Your task to perform on an android device: turn smart compose on in the gmail app Image 0: 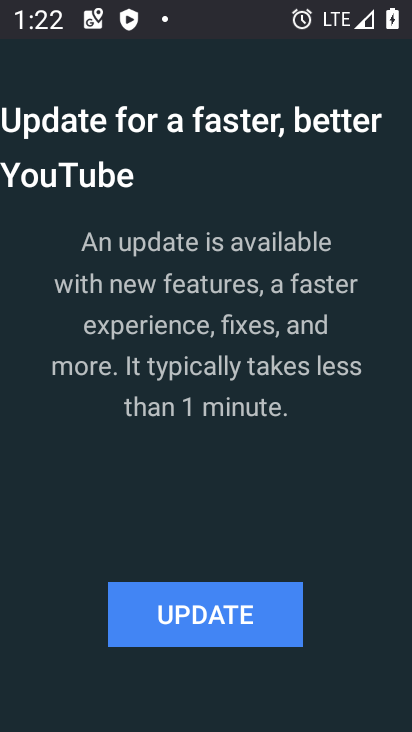
Step 0: press home button
Your task to perform on an android device: turn smart compose on in the gmail app Image 1: 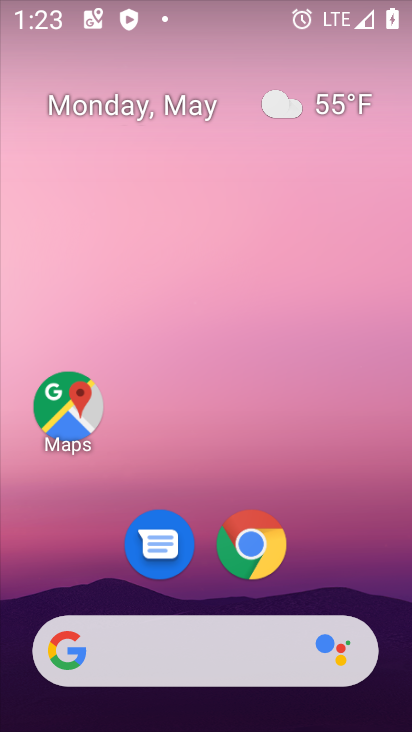
Step 1: drag from (398, 659) to (390, 243)
Your task to perform on an android device: turn smart compose on in the gmail app Image 2: 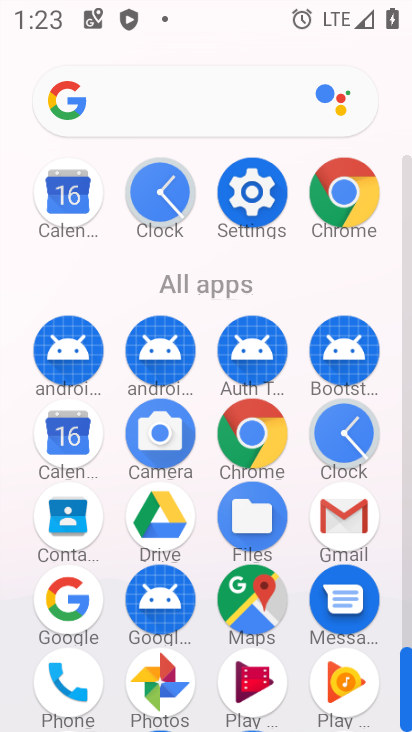
Step 2: click (343, 509)
Your task to perform on an android device: turn smart compose on in the gmail app Image 3: 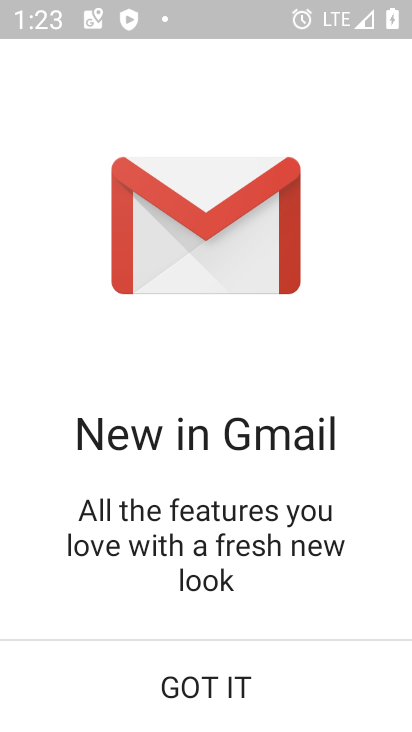
Step 3: click (202, 708)
Your task to perform on an android device: turn smart compose on in the gmail app Image 4: 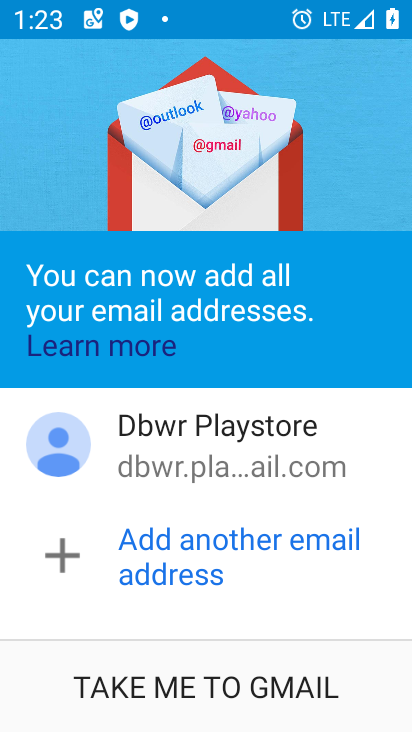
Step 4: click (202, 708)
Your task to perform on an android device: turn smart compose on in the gmail app Image 5: 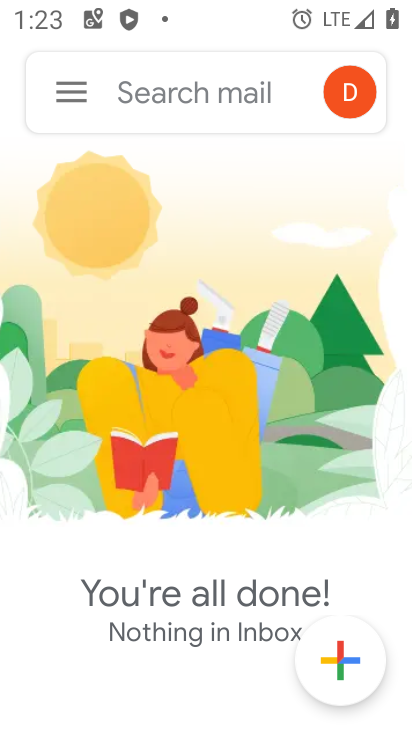
Step 5: click (66, 90)
Your task to perform on an android device: turn smart compose on in the gmail app Image 6: 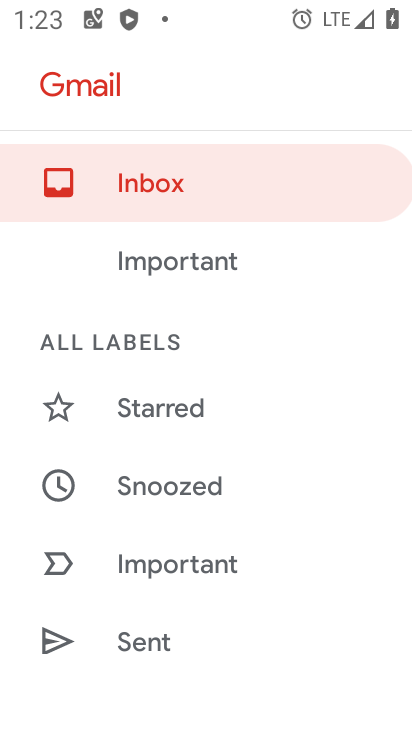
Step 6: drag from (251, 647) to (270, 224)
Your task to perform on an android device: turn smart compose on in the gmail app Image 7: 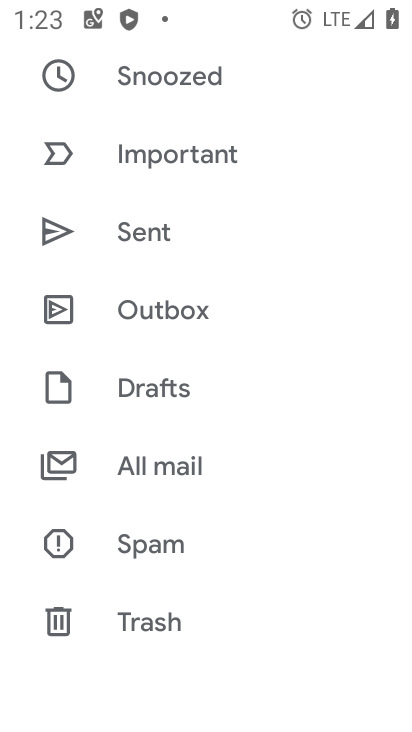
Step 7: drag from (263, 643) to (279, 258)
Your task to perform on an android device: turn smart compose on in the gmail app Image 8: 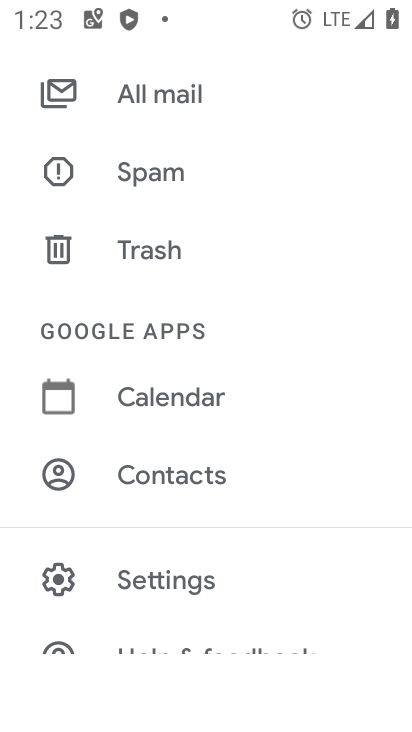
Step 8: click (170, 589)
Your task to perform on an android device: turn smart compose on in the gmail app Image 9: 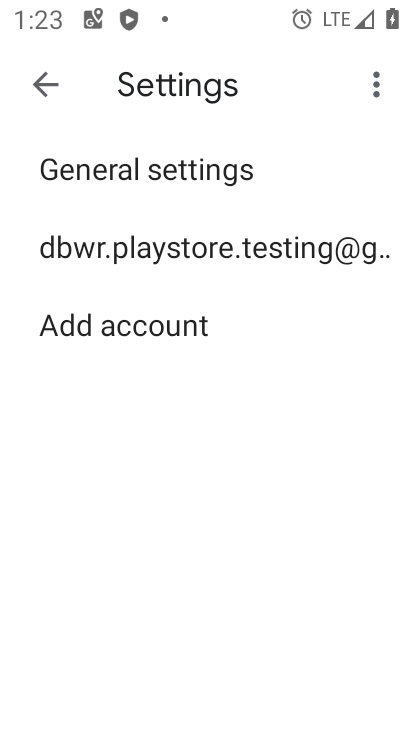
Step 9: click (193, 245)
Your task to perform on an android device: turn smart compose on in the gmail app Image 10: 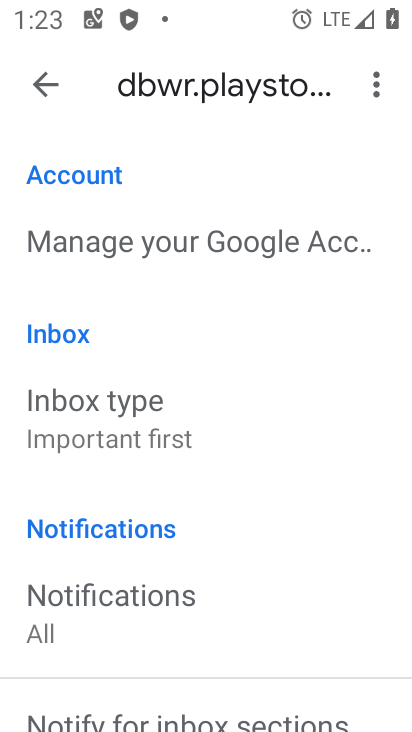
Step 10: task complete